Your task to perform on an android device: stop showing notifications on the lock screen Image 0: 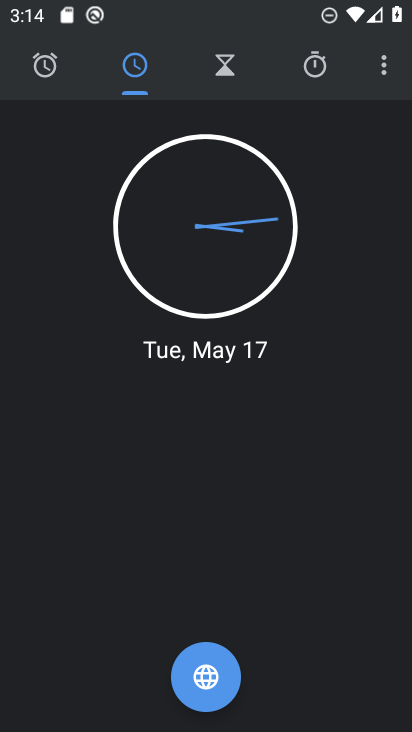
Step 0: press back button
Your task to perform on an android device: stop showing notifications on the lock screen Image 1: 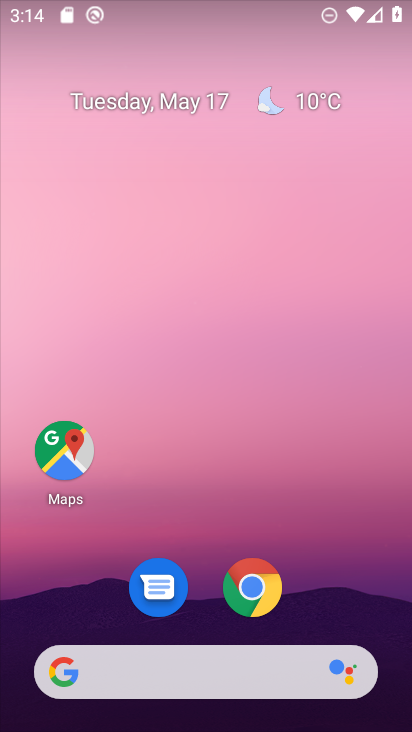
Step 1: drag from (294, 559) to (214, 29)
Your task to perform on an android device: stop showing notifications on the lock screen Image 2: 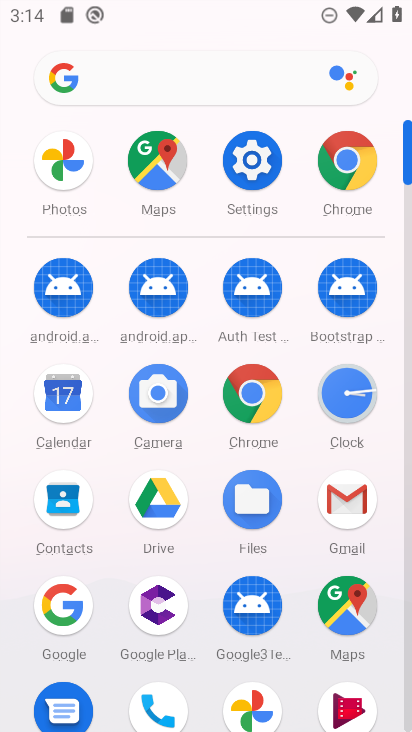
Step 2: click (248, 159)
Your task to perform on an android device: stop showing notifications on the lock screen Image 3: 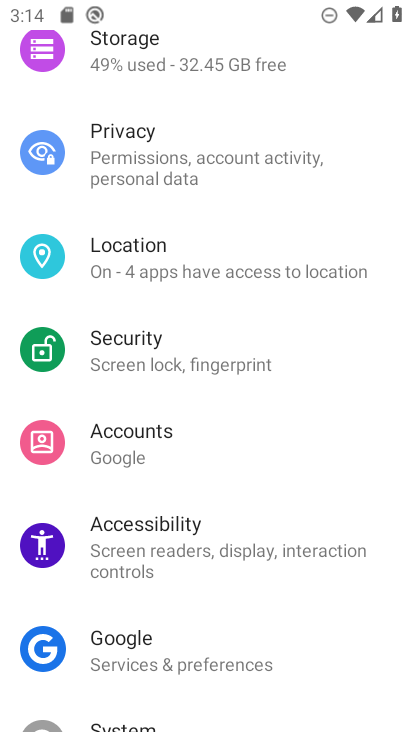
Step 3: drag from (239, 161) to (249, 551)
Your task to perform on an android device: stop showing notifications on the lock screen Image 4: 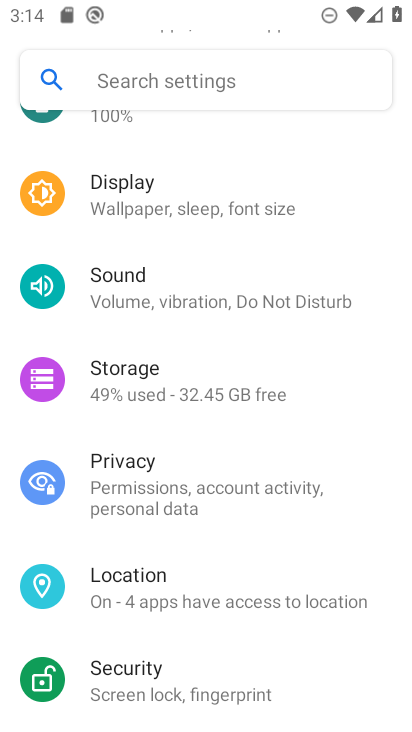
Step 4: drag from (246, 262) to (269, 645)
Your task to perform on an android device: stop showing notifications on the lock screen Image 5: 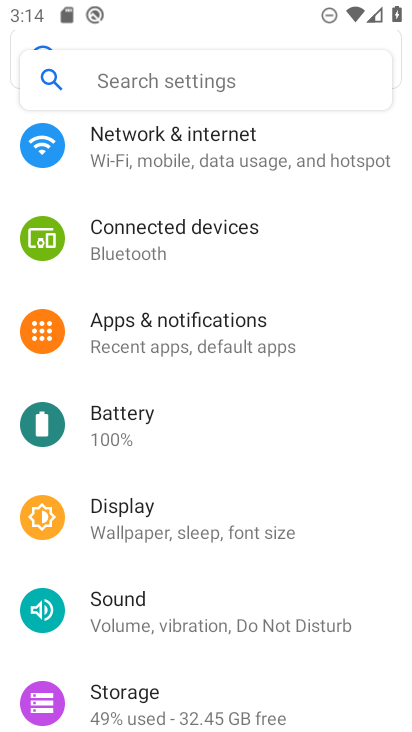
Step 5: click (218, 324)
Your task to perform on an android device: stop showing notifications on the lock screen Image 6: 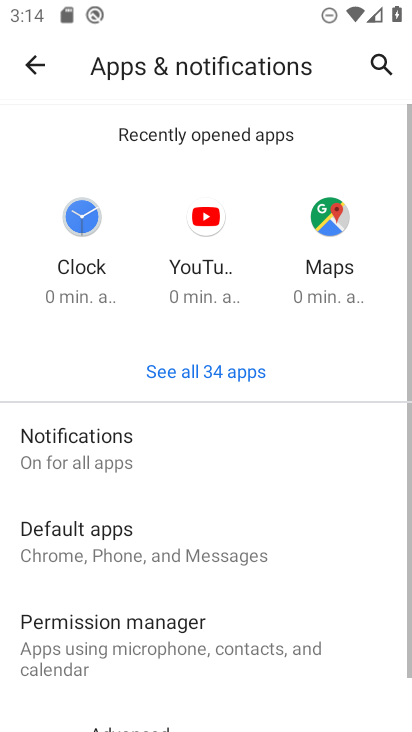
Step 6: drag from (243, 597) to (222, 196)
Your task to perform on an android device: stop showing notifications on the lock screen Image 7: 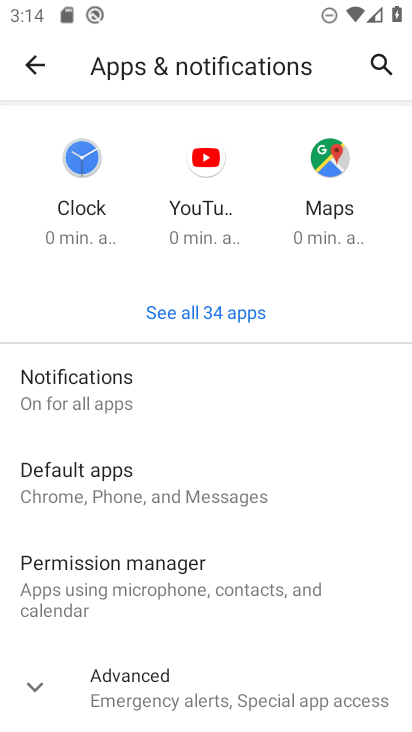
Step 7: click (151, 381)
Your task to perform on an android device: stop showing notifications on the lock screen Image 8: 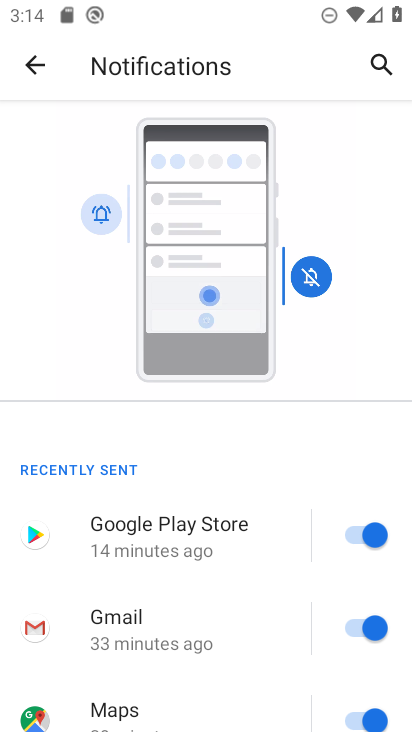
Step 8: drag from (181, 586) to (185, 166)
Your task to perform on an android device: stop showing notifications on the lock screen Image 9: 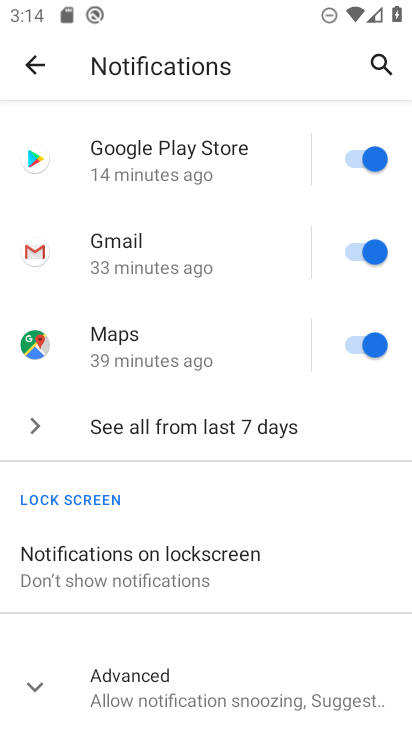
Step 9: drag from (175, 524) to (178, 191)
Your task to perform on an android device: stop showing notifications on the lock screen Image 10: 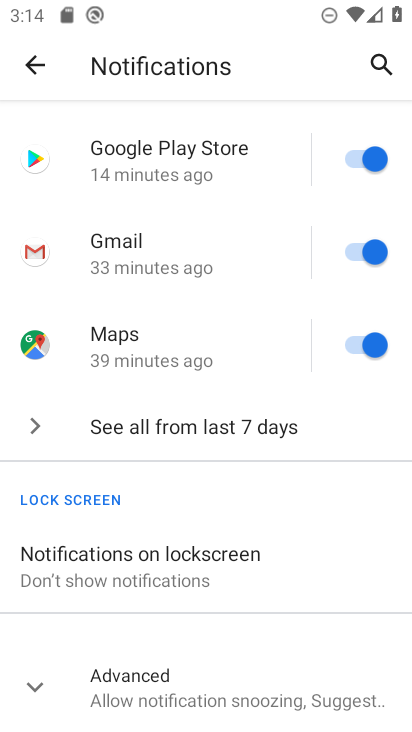
Step 10: click (163, 557)
Your task to perform on an android device: stop showing notifications on the lock screen Image 11: 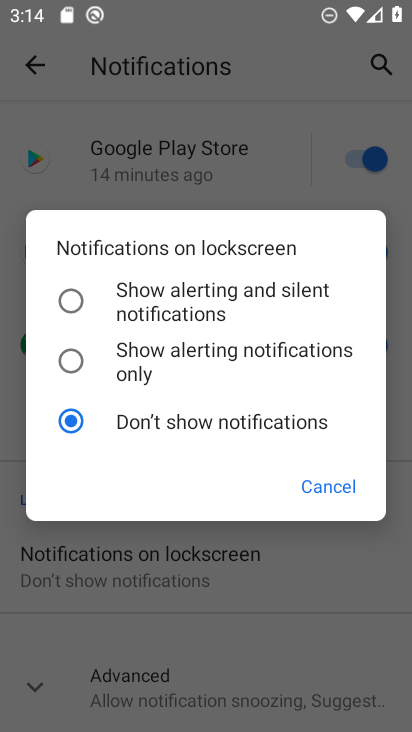
Step 11: click (192, 430)
Your task to perform on an android device: stop showing notifications on the lock screen Image 12: 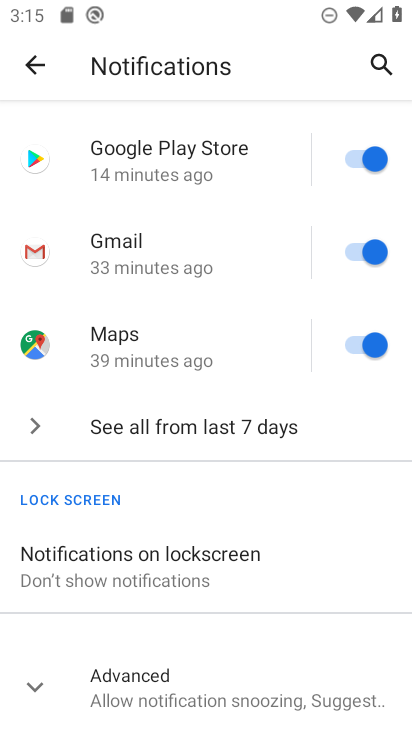
Step 12: task complete